Your task to perform on an android device: open chrome privacy settings Image 0: 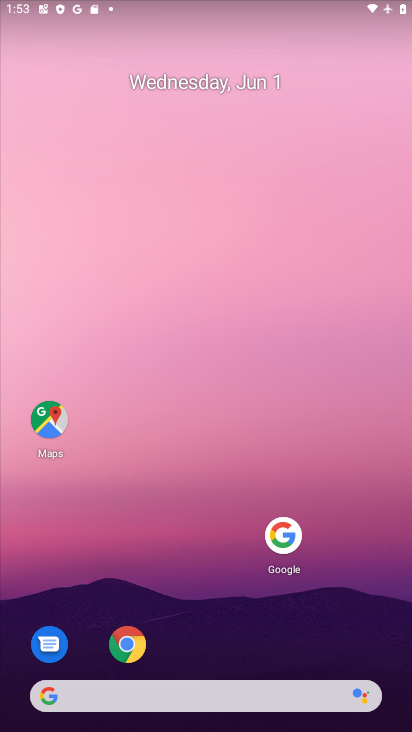
Step 0: press home button
Your task to perform on an android device: open chrome privacy settings Image 1: 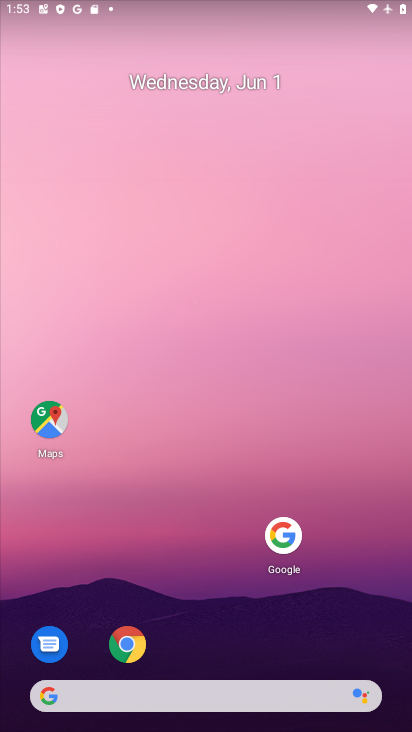
Step 1: click (122, 636)
Your task to perform on an android device: open chrome privacy settings Image 2: 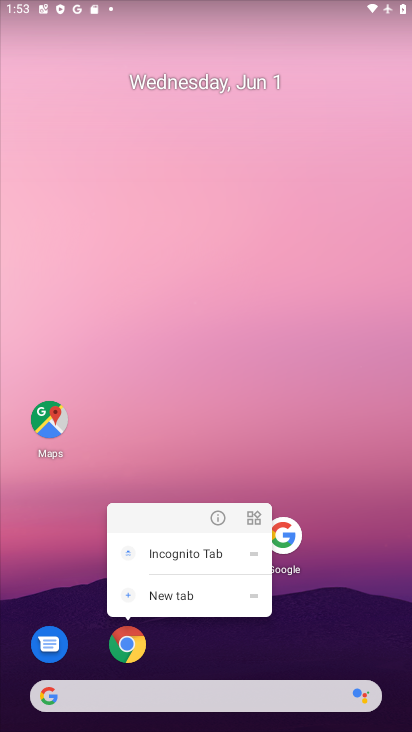
Step 2: click (137, 647)
Your task to perform on an android device: open chrome privacy settings Image 3: 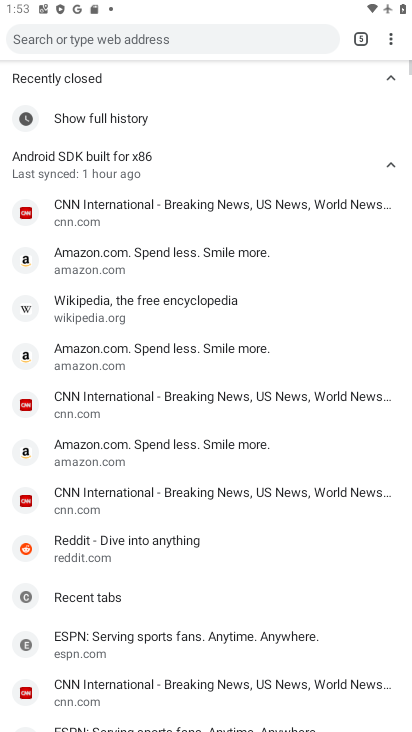
Step 3: drag from (390, 40) to (339, 369)
Your task to perform on an android device: open chrome privacy settings Image 4: 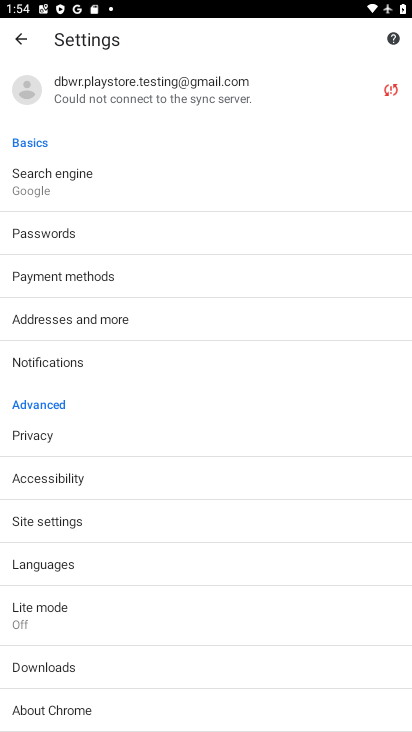
Step 4: click (35, 437)
Your task to perform on an android device: open chrome privacy settings Image 5: 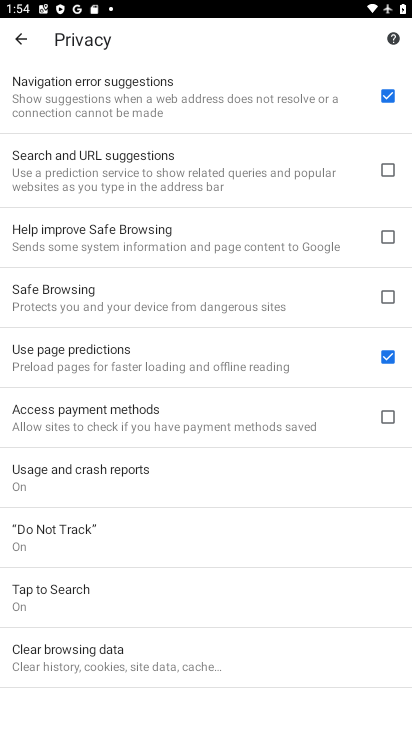
Step 5: task complete